Your task to perform on an android device: delete the emails in spam in the gmail app Image 0: 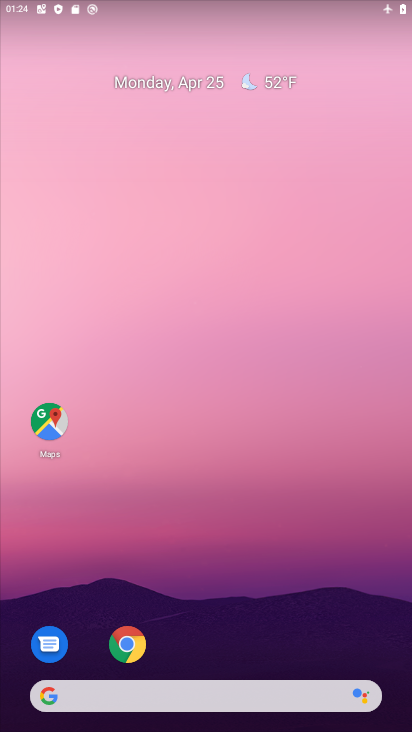
Step 0: drag from (236, 628) to (258, 113)
Your task to perform on an android device: delete the emails in spam in the gmail app Image 1: 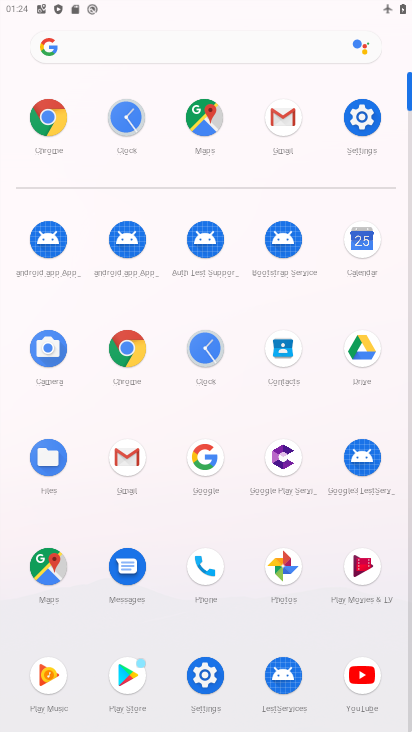
Step 1: click (270, 134)
Your task to perform on an android device: delete the emails in spam in the gmail app Image 2: 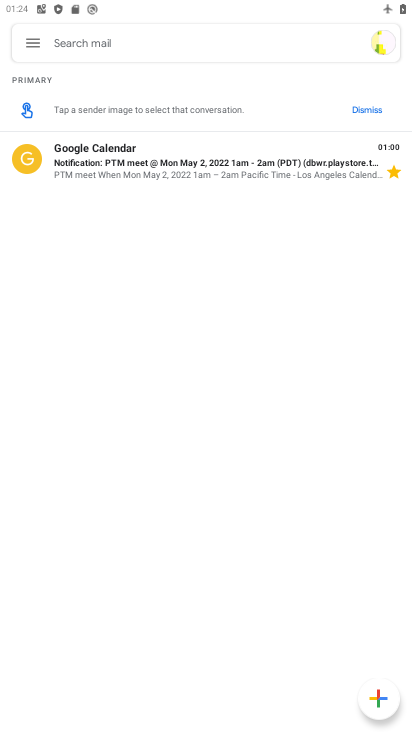
Step 2: click (32, 46)
Your task to perform on an android device: delete the emails in spam in the gmail app Image 3: 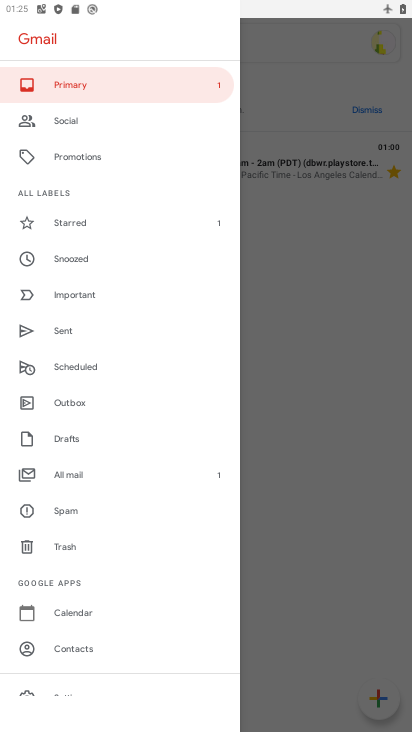
Step 3: click (104, 473)
Your task to perform on an android device: delete the emails in spam in the gmail app Image 4: 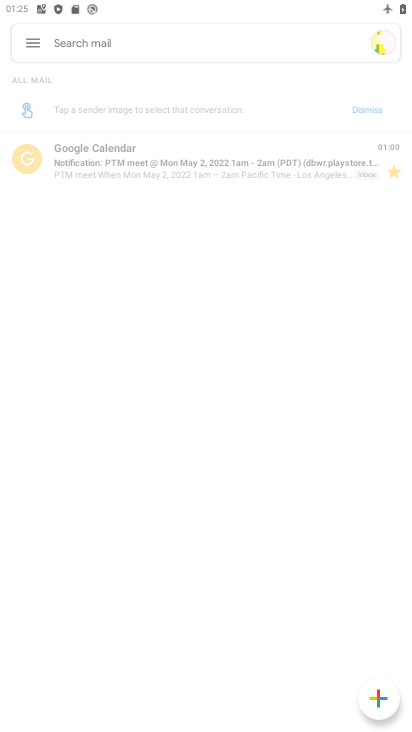
Step 4: task complete